Your task to perform on an android device: open a bookmark in the chrome app Image 0: 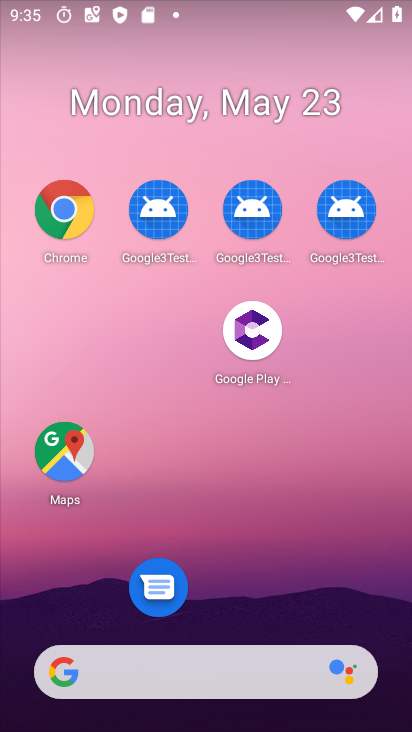
Step 0: click (67, 199)
Your task to perform on an android device: open a bookmark in the chrome app Image 1: 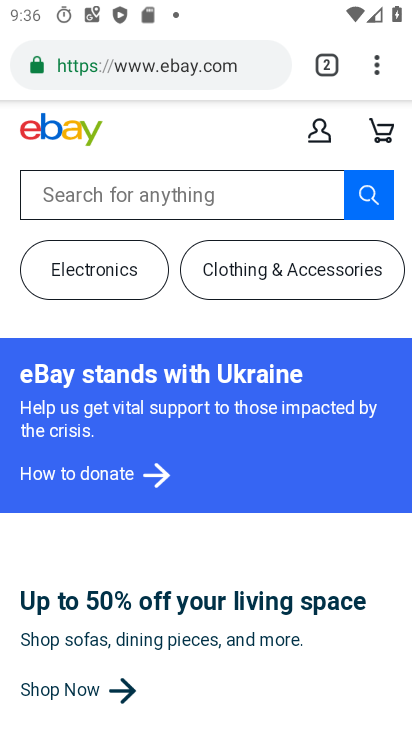
Step 1: click (378, 68)
Your task to perform on an android device: open a bookmark in the chrome app Image 2: 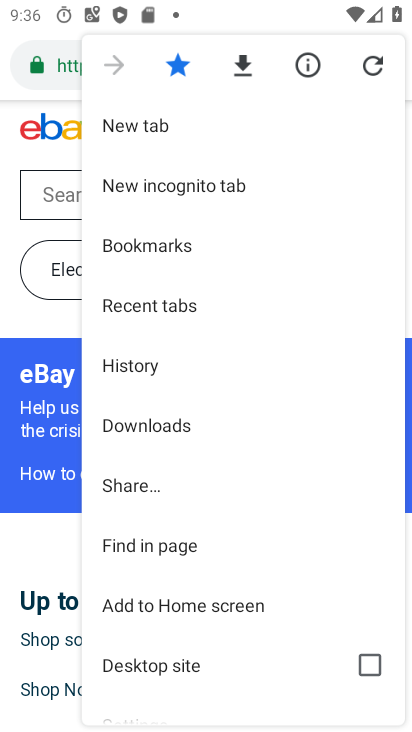
Step 2: click (159, 238)
Your task to perform on an android device: open a bookmark in the chrome app Image 3: 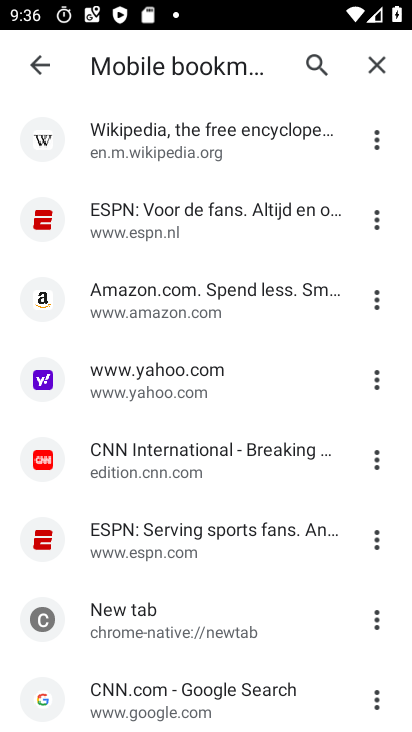
Step 3: click (147, 145)
Your task to perform on an android device: open a bookmark in the chrome app Image 4: 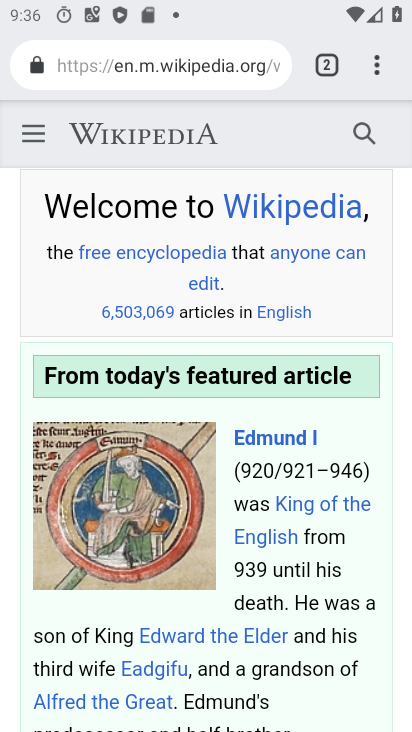
Step 4: task complete